Your task to perform on an android device: add a contact in the contacts app Image 0: 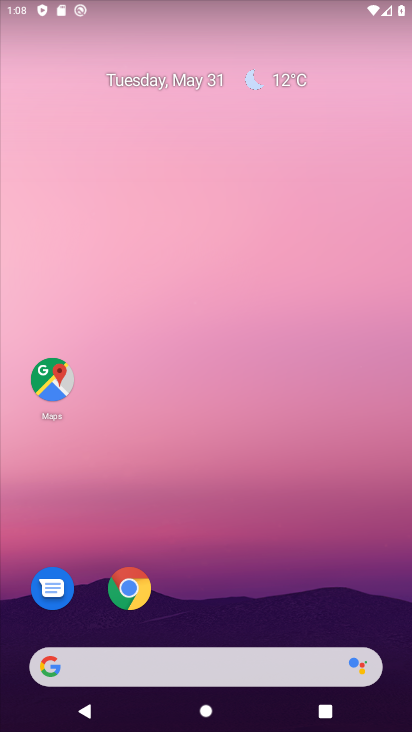
Step 0: drag from (400, 702) to (338, 128)
Your task to perform on an android device: add a contact in the contacts app Image 1: 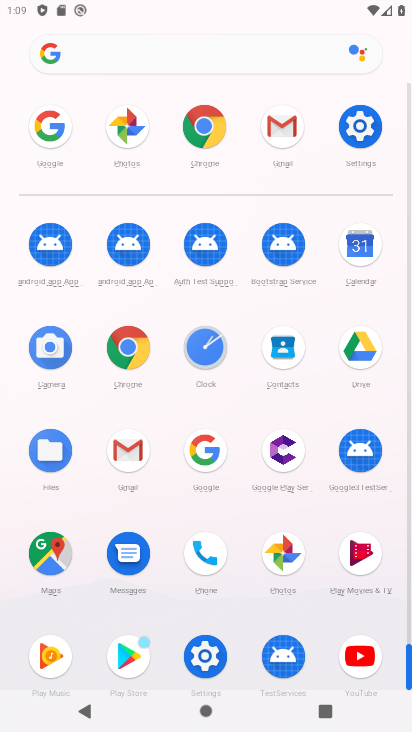
Step 1: click (269, 349)
Your task to perform on an android device: add a contact in the contacts app Image 2: 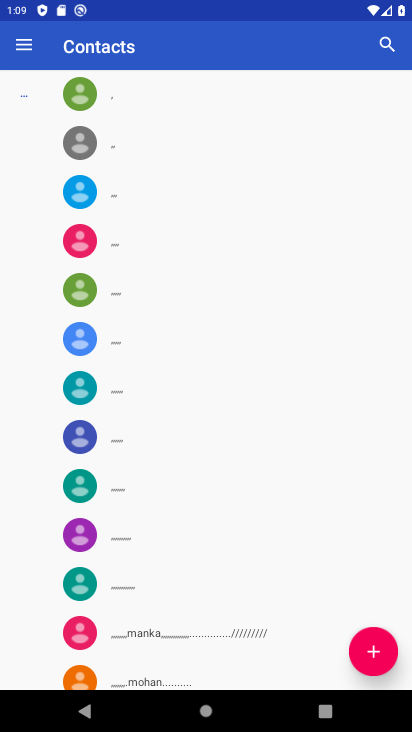
Step 2: click (377, 647)
Your task to perform on an android device: add a contact in the contacts app Image 3: 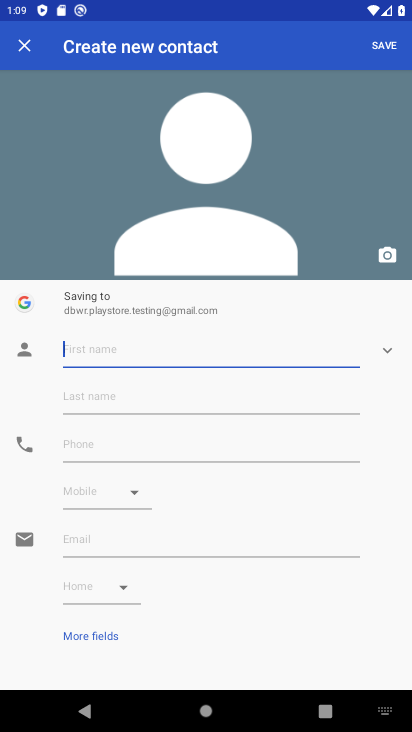
Step 3: type "sdfhgj m"
Your task to perform on an android device: add a contact in the contacts app Image 4: 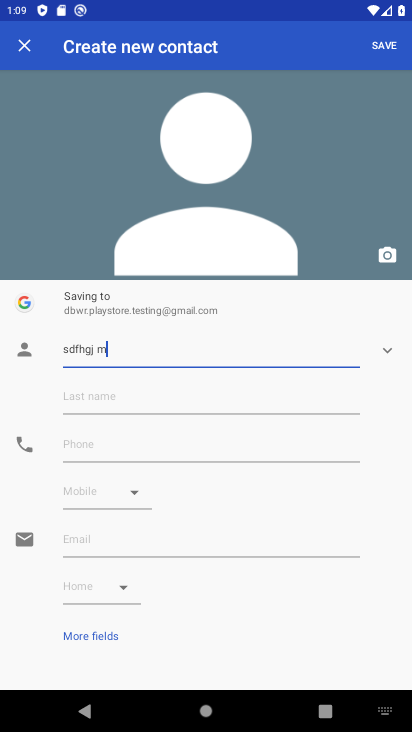
Step 4: click (100, 400)
Your task to perform on an android device: add a contact in the contacts app Image 5: 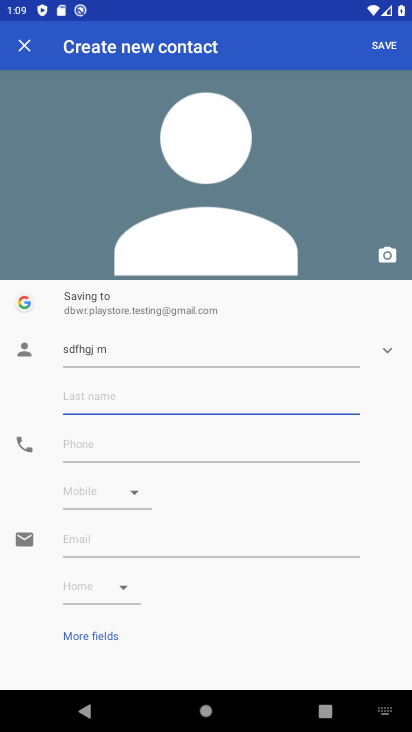
Step 5: type "rdtfg jm"
Your task to perform on an android device: add a contact in the contacts app Image 6: 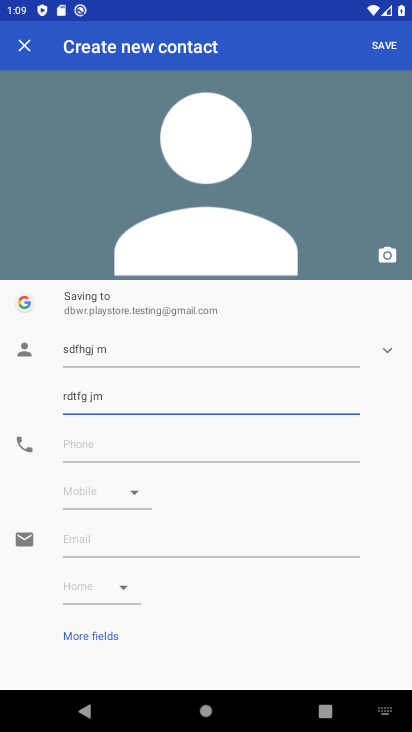
Step 6: click (81, 442)
Your task to perform on an android device: add a contact in the contacts app Image 7: 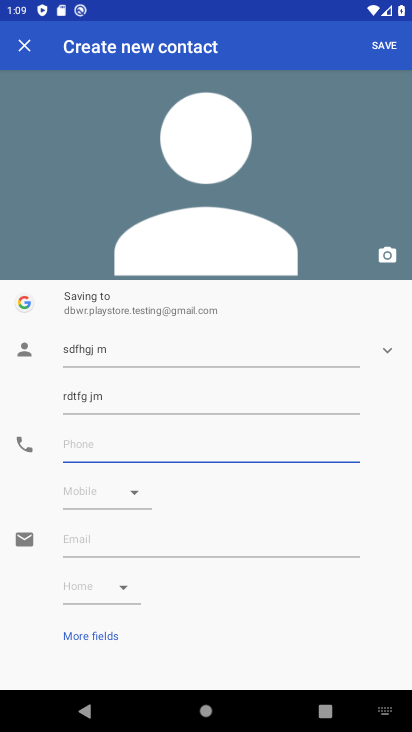
Step 7: type "34567898544"
Your task to perform on an android device: add a contact in the contacts app Image 8: 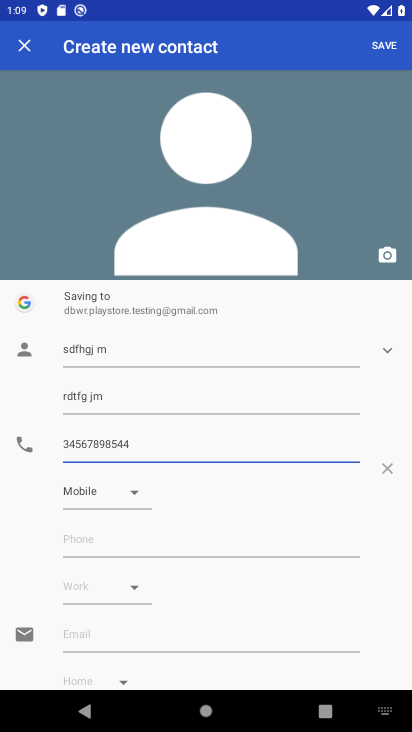
Step 8: click (382, 42)
Your task to perform on an android device: add a contact in the contacts app Image 9: 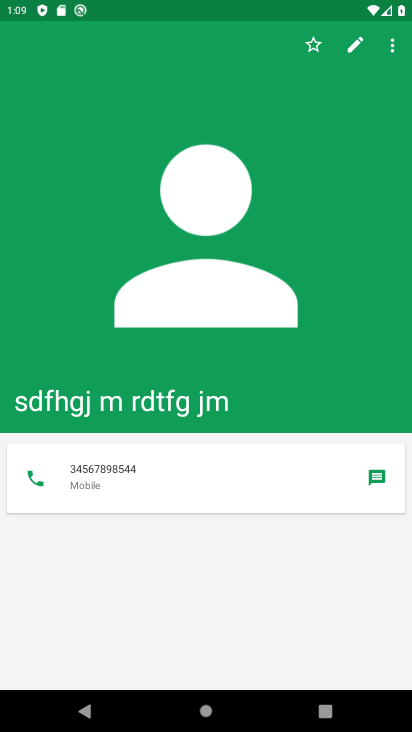
Step 9: task complete